Your task to perform on an android device: Search for the best custom wallets on Etsy. Image 0: 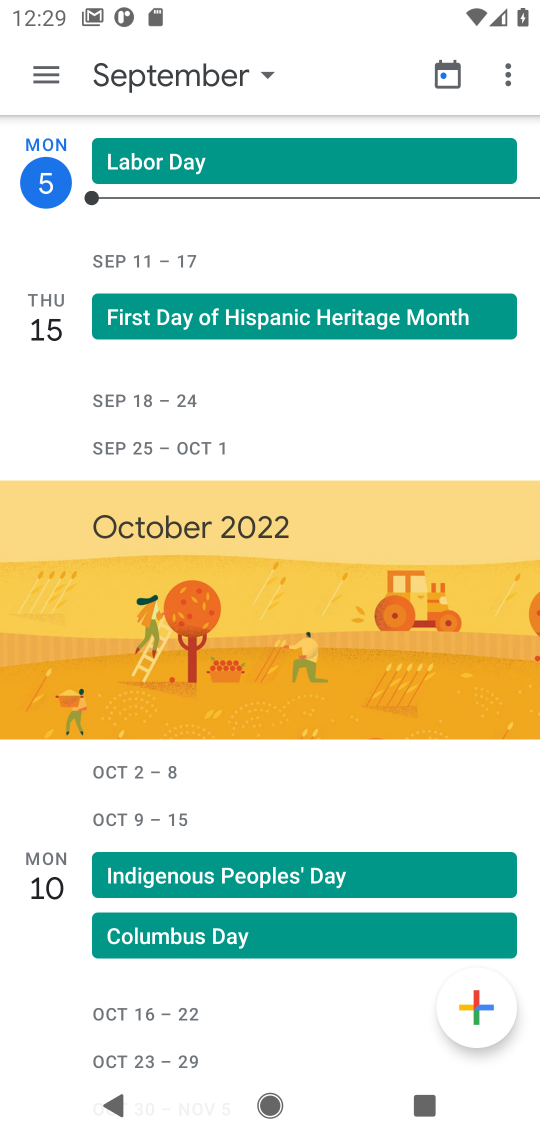
Step 0: press home button
Your task to perform on an android device: Search for the best custom wallets on Etsy. Image 1: 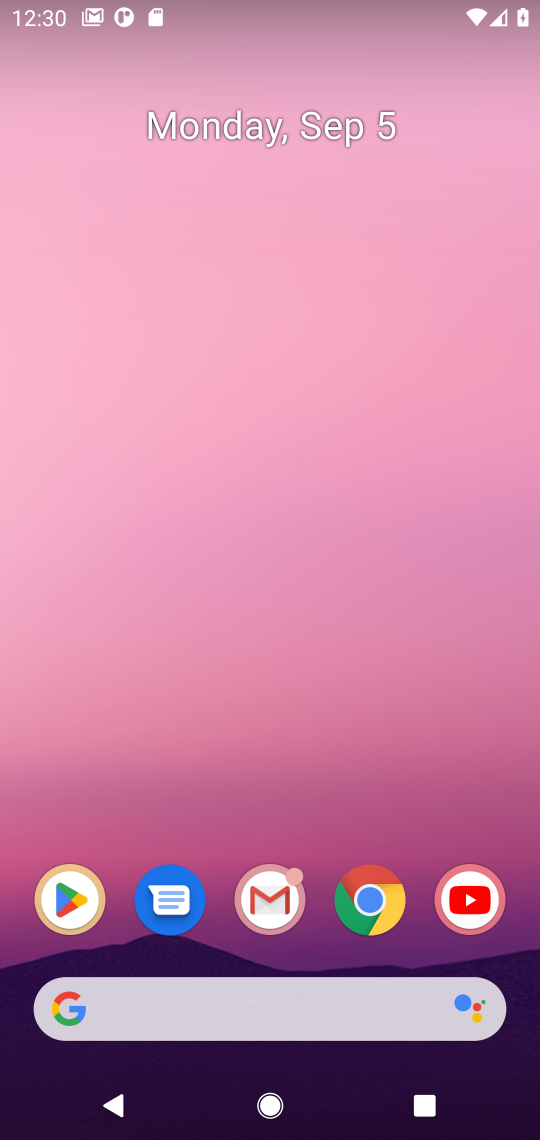
Step 1: drag from (325, 216) to (328, 147)
Your task to perform on an android device: Search for the best custom wallets on Etsy. Image 2: 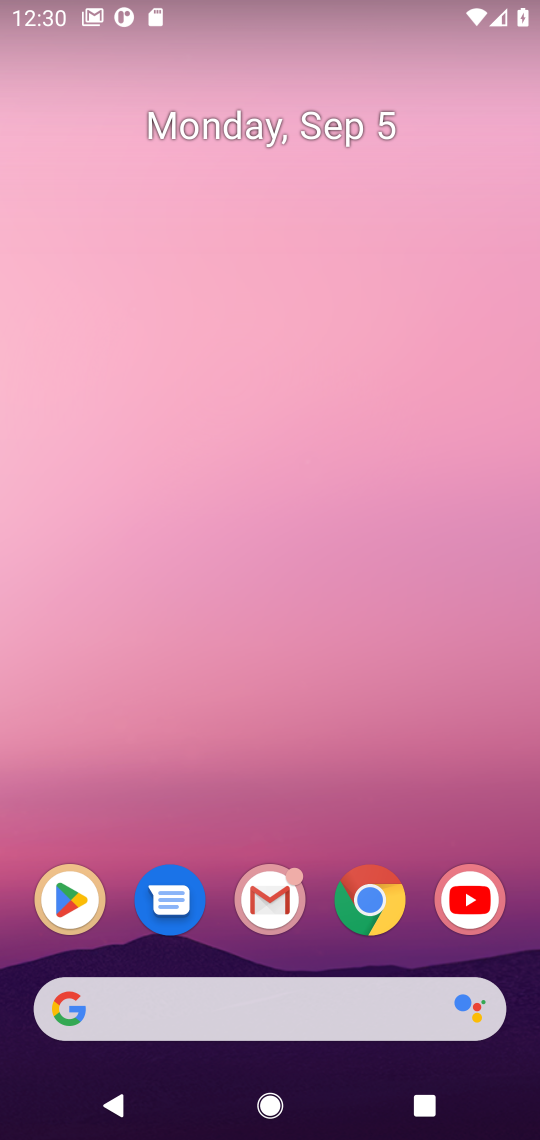
Step 2: drag from (307, 990) to (380, 22)
Your task to perform on an android device: Search for the best custom wallets on Etsy. Image 3: 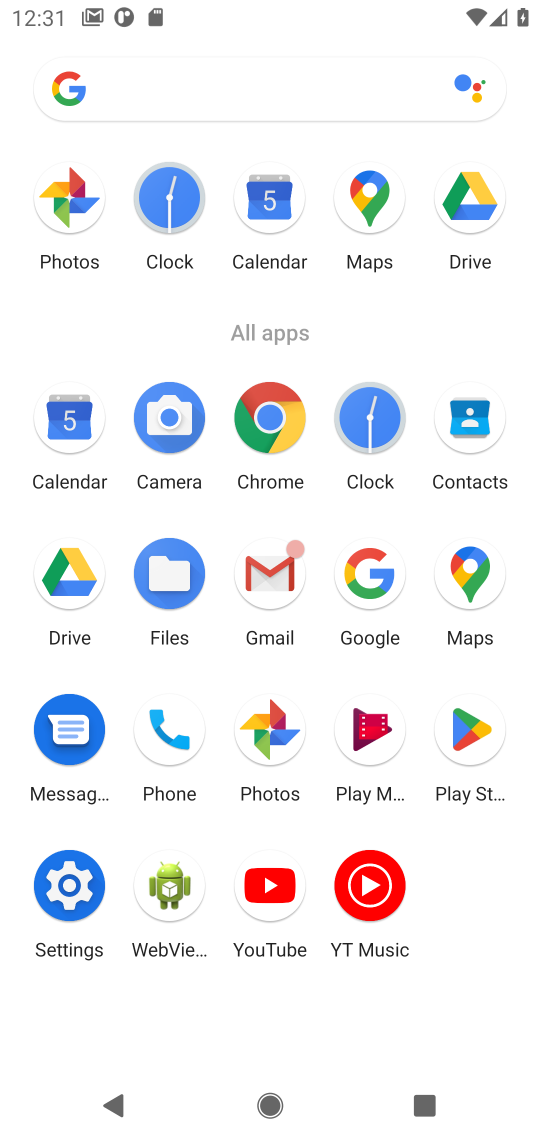
Step 3: click (363, 577)
Your task to perform on an android device: Search for the best custom wallets on Etsy. Image 4: 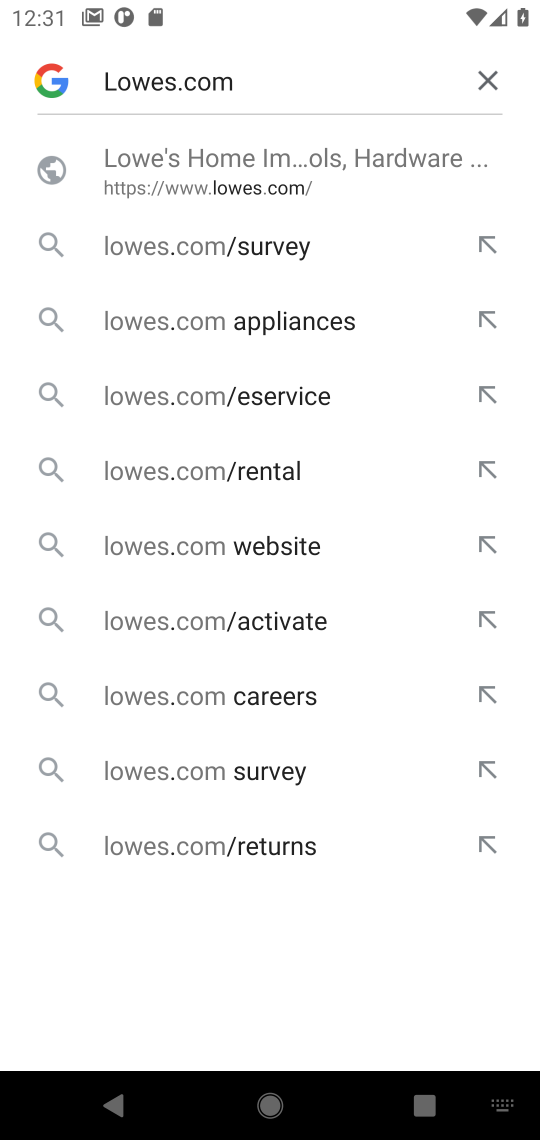
Step 4: click (480, 76)
Your task to perform on an android device: Search for the best custom wallets on Etsy. Image 5: 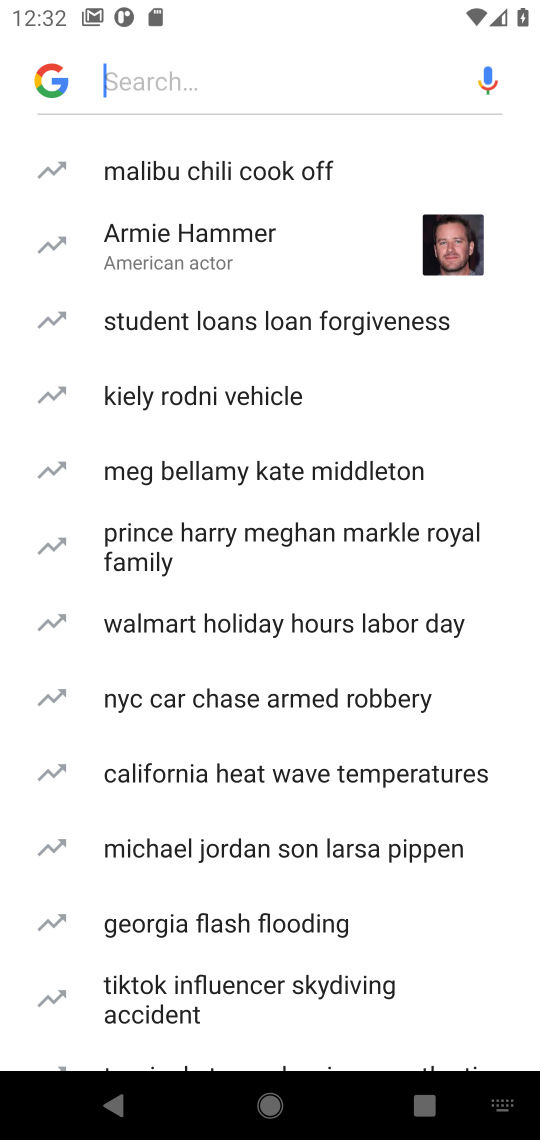
Step 5: type "Etsy"
Your task to perform on an android device: Search for the best custom wallets on Etsy. Image 6: 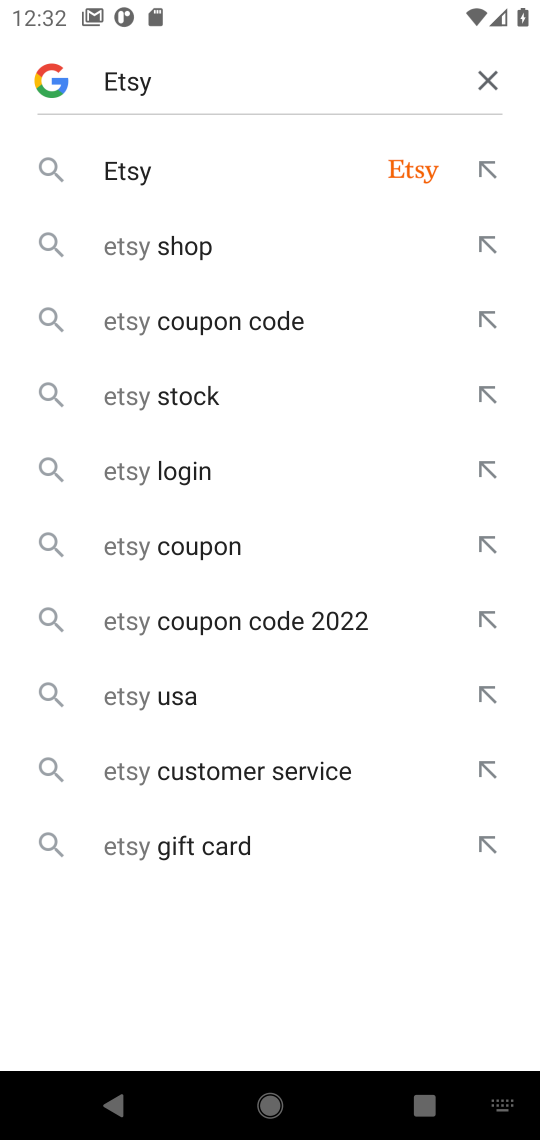
Step 6: type ""
Your task to perform on an android device: Search for the best custom wallets on Etsy. Image 7: 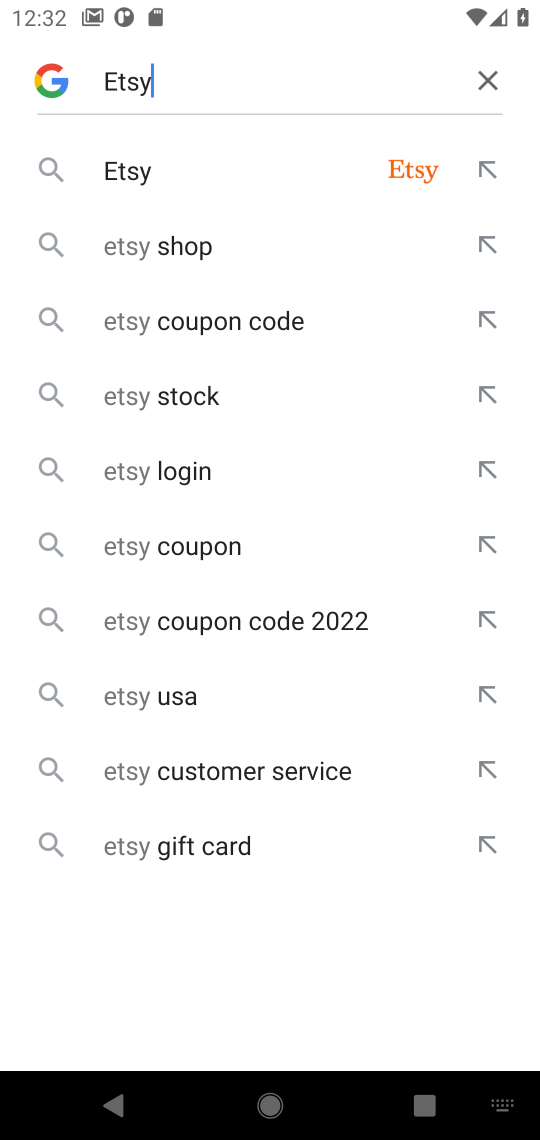
Step 7: click (136, 166)
Your task to perform on an android device: Search for the best custom wallets on Etsy. Image 8: 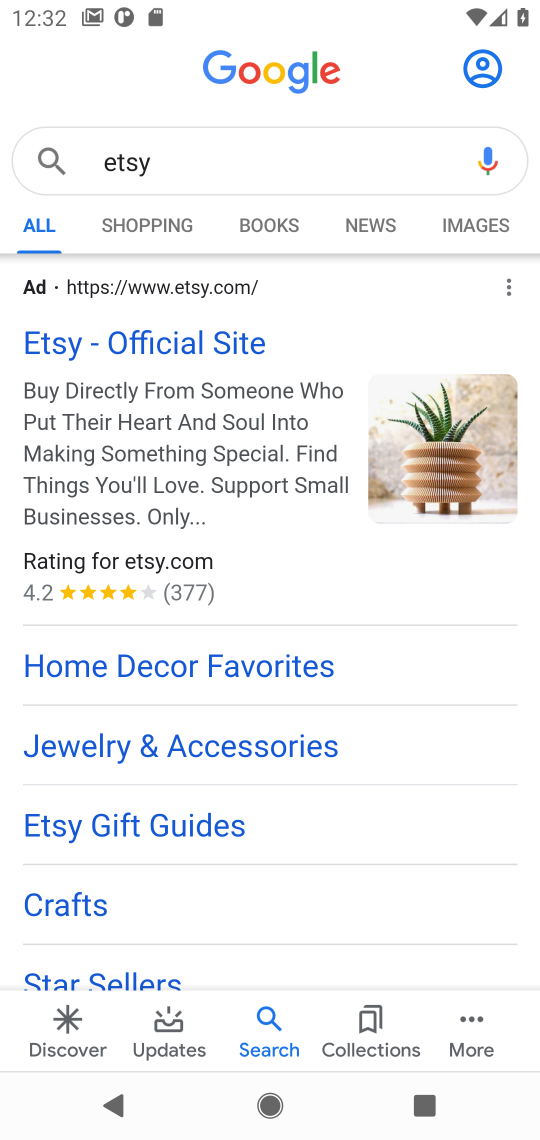
Step 8: click (172, 347)
Your task to perform on an android device: Search for the best custom wallets on Etsy. Image 9: 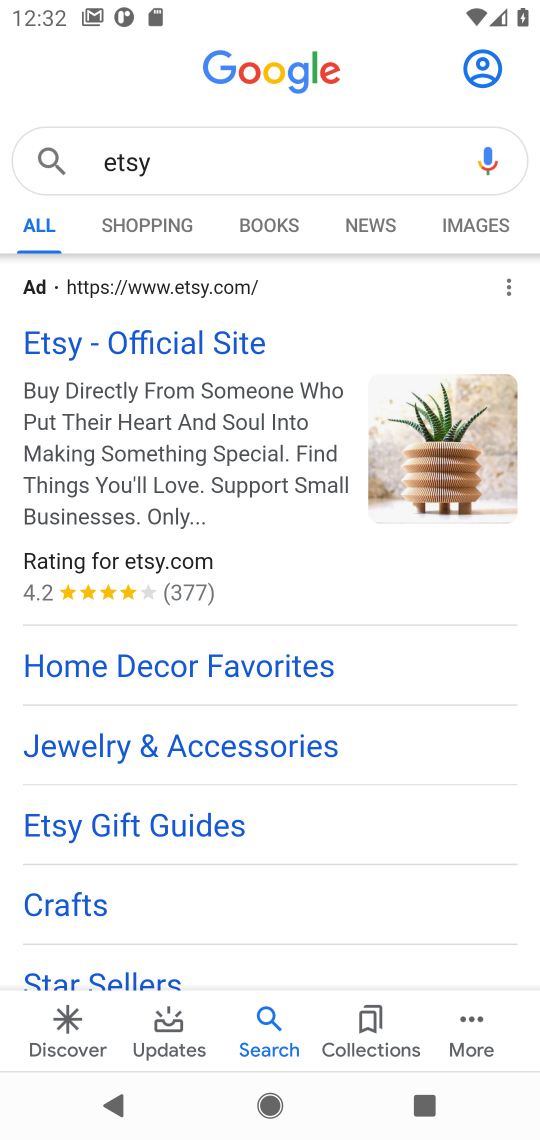
Step 9: click (172, 342)
Your task to perform on an android device: Search for the best custom wallets on Etsy. Image 10: 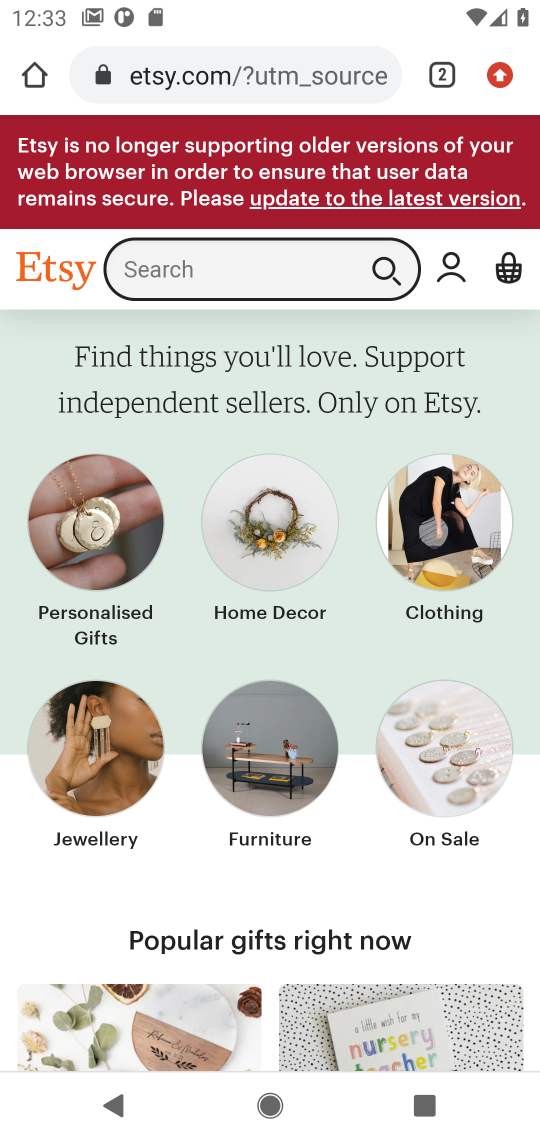
Step 10: click (161, 269)
Your task to perform on an android device: Search for the best custom wallets on Etsy. Image 11: 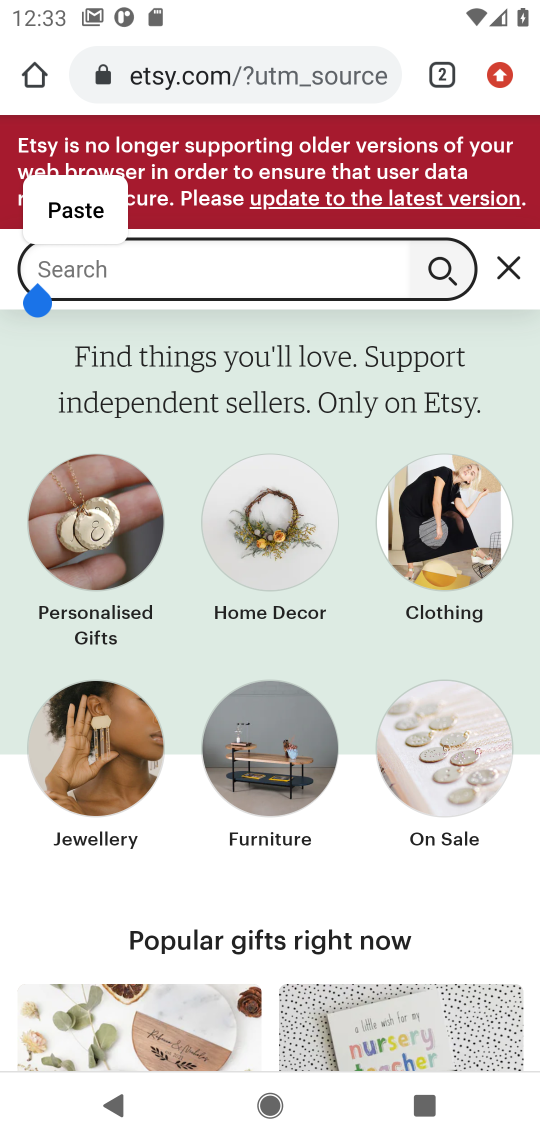
Step 11: type "custom wallet"
Your task to perform on an android device: Search for the best custom wallets on Etsy. Image 12: 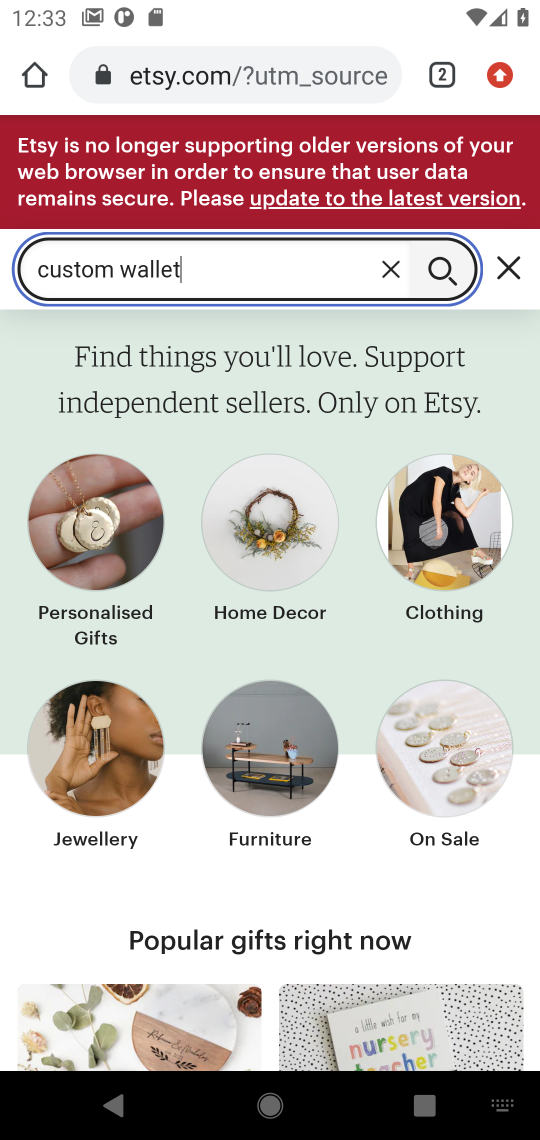
Step 12: type ""
Your task to perform on an android device: Search for the best custom wallets on Etsy. Image 13: 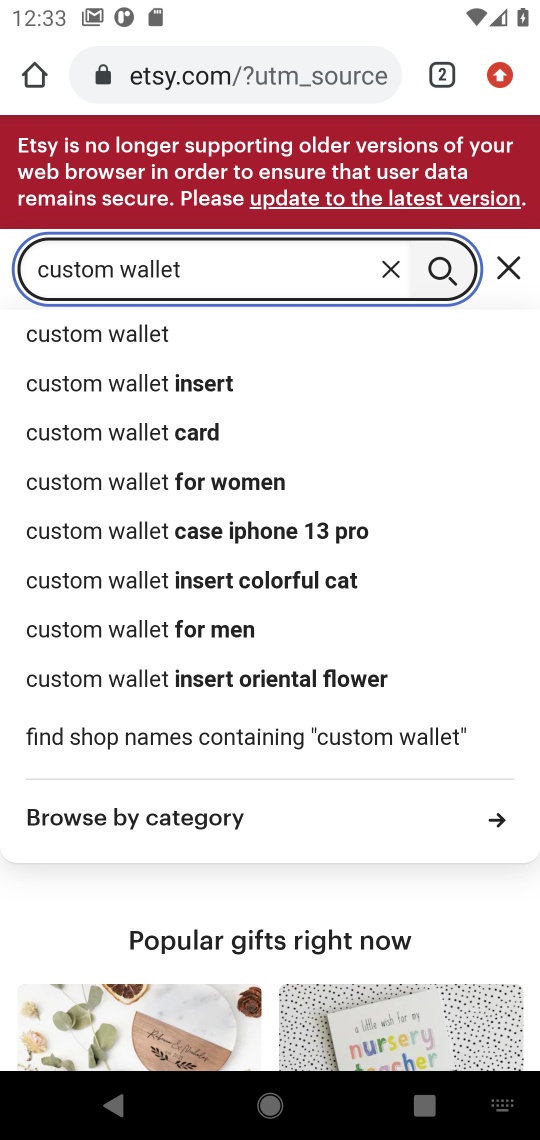
Step 13: click (134, 340)
Your task to perform on an android device: Search for the best custom wallets on Etsy. Image 14: 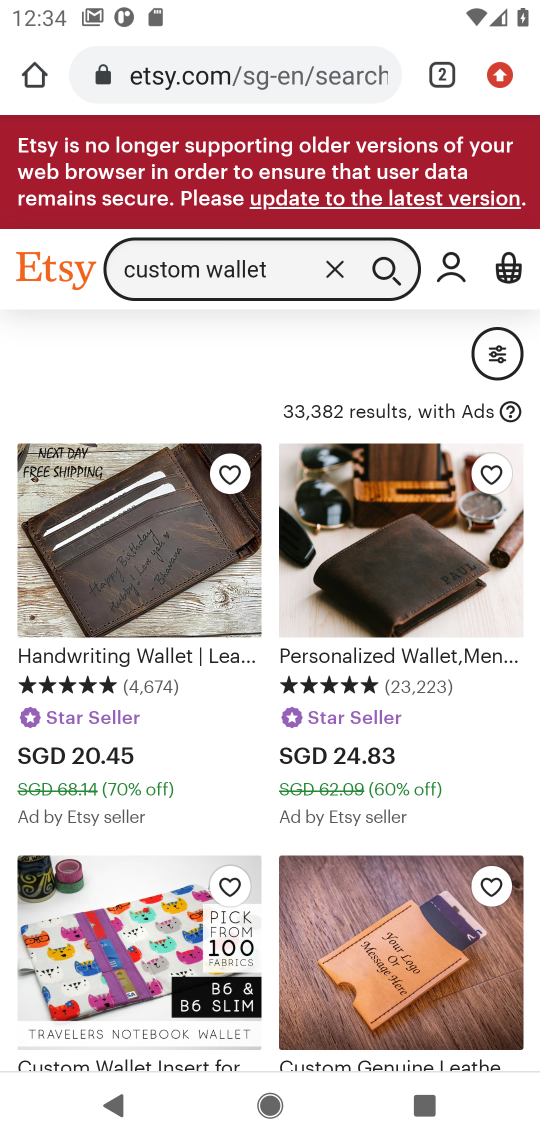
Step 14: task complete